Your task to perform on an android device: see tabs open on other devices in the chrome app Image 0: 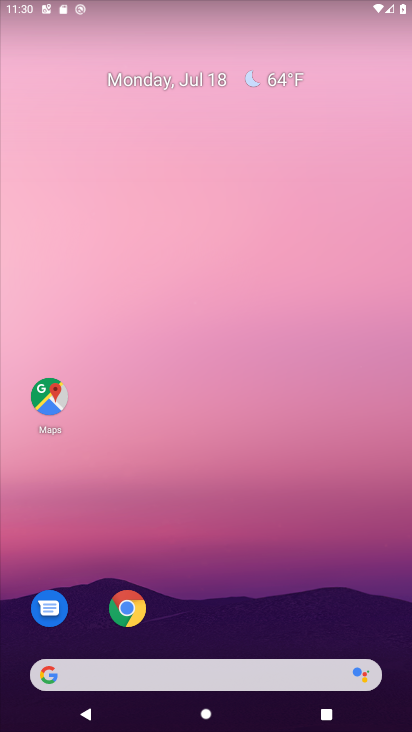
Step 0: drag from (262, 576) to (280, 98)
Your task to perform on an android device: see tabs open on other devices in the chrome app Image 1: 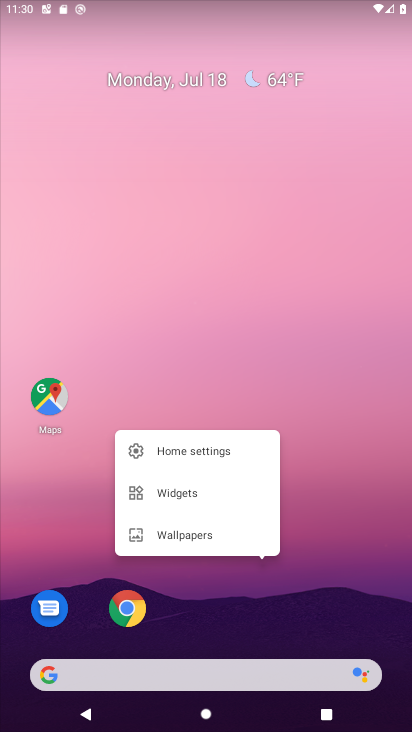
Step 1: click (394, 400)
Your task to perform on an android device: see tabs open on other devices in the chrome app Image 2: 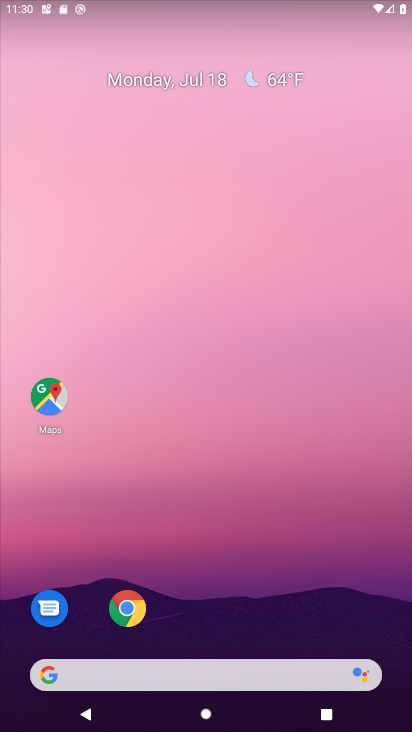
Step 2: drag from (216, 483) to (274, 24)
Your task to perform on an android device: see tabs open on other devices in the chrome app Image 3: 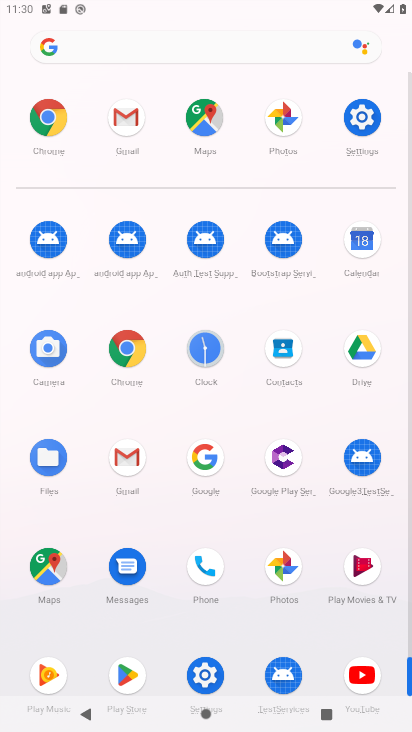
Step 3: click (124, 351)
Your task to perform on an android device: see tabs open on other devices in the chrome app Image 4: 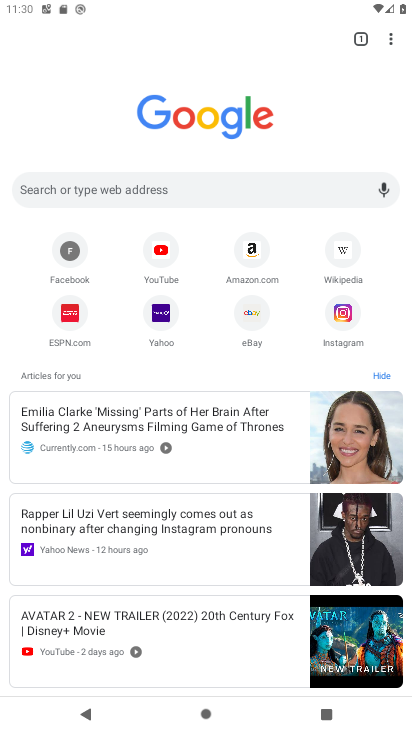
Step 4: click (391, 38)
Your task to perform on an android device: see tabs open on other devices in the chrome app Image 5: 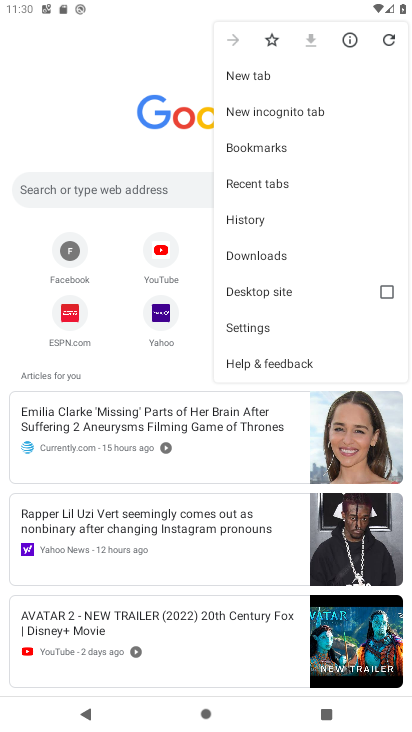
Step 5: click (278, 193)
Your task to perform on an android device: see tabs open on other devices in the chrome app Image 6: 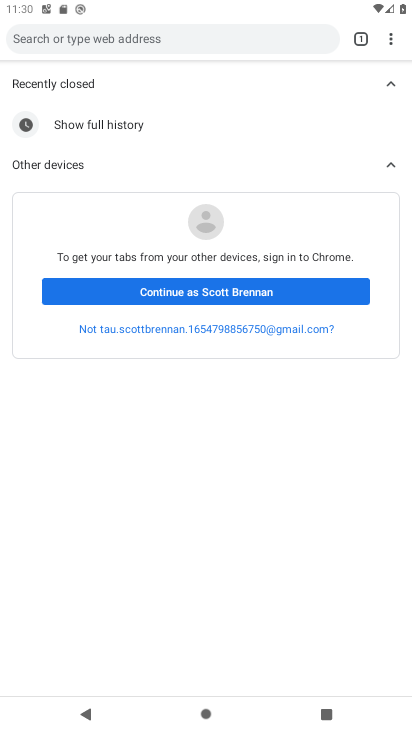
Step 6: click (225, 297)
Your task to perform on an android device: see tabs open on other devices in the chrome app Image 7: 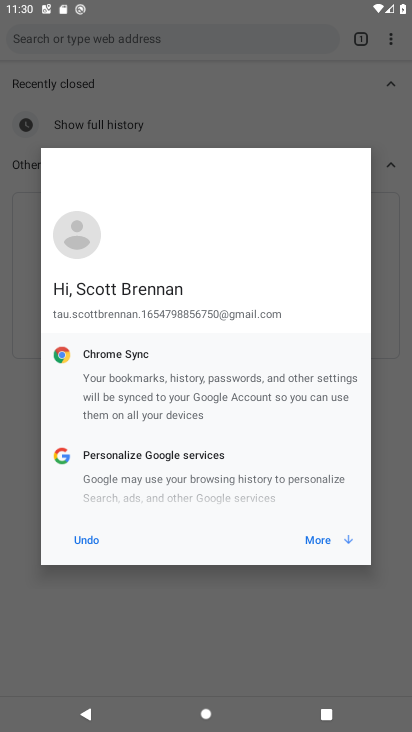
Step 7: click (319, 540)
Your task to perform on an android device: see tabs open on other devices in the chrome app Image 8: 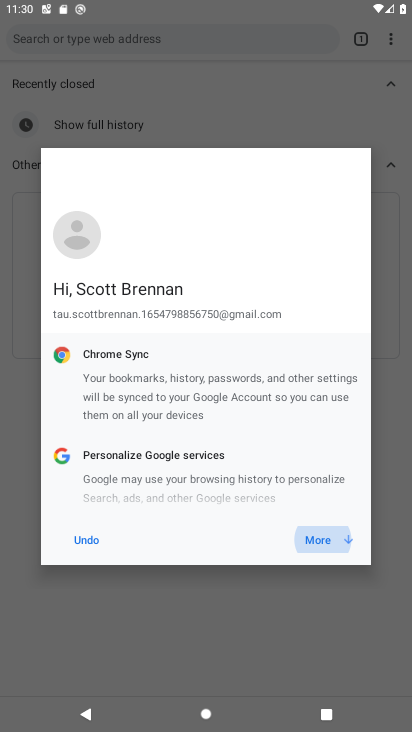
Step 8: click (320, 540)
Your task to perform on an android device: see tabs open on other devices in the chrome app Image 9: 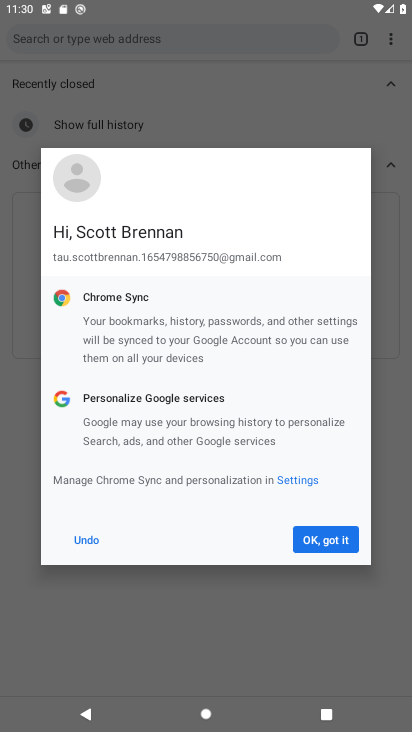
Step 9: click (320, 540)
Your task to perform on an android device: see tabs open on other devices in the chrome app Image 10: 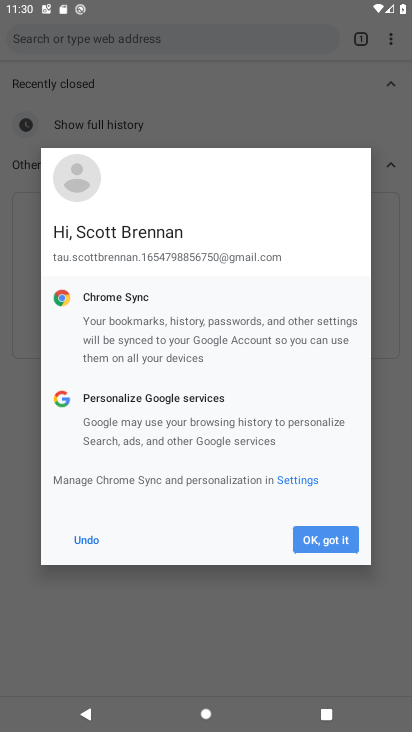
Step 10: click (320, 539)
Your task to perform on an android device: see tabs open on other devices in the chrome app Image 11: 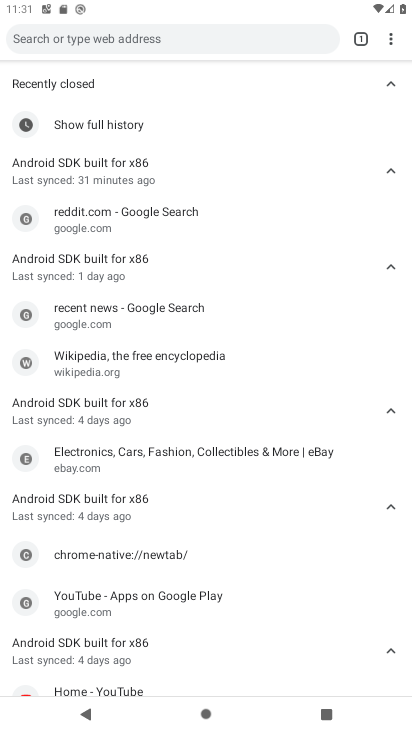
Step 11: task complete